Your task to perform on an android device: What is the recent news? Image 0: 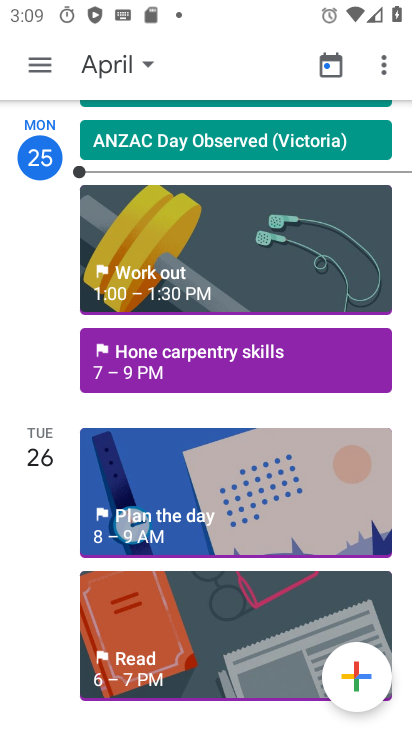
Step 0: press home button
Your task to perform on an android device: What is the recent news? Image 1: 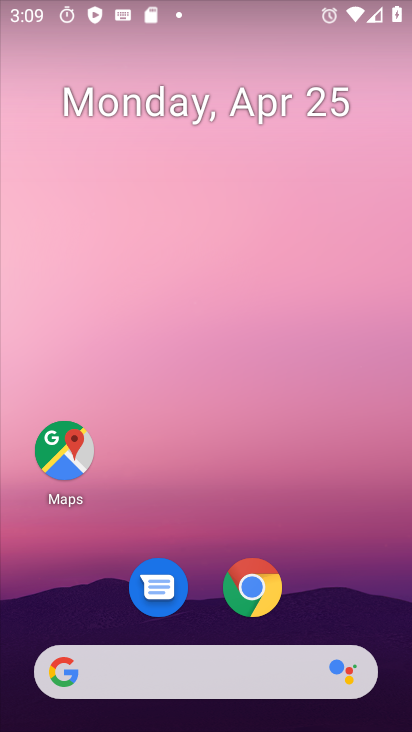
Step 1: drag from (331, 571) to (282, 2)
Your task to perform on an android device: What is the recent news? Image 2: 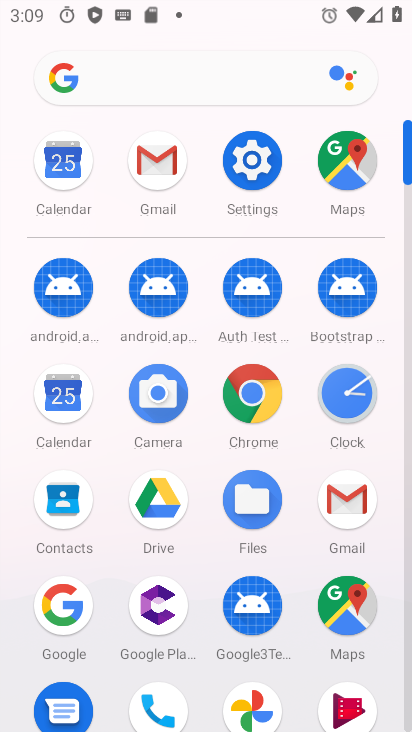
Step 2: click (240, 407)
Your task to perform on an android device: What is the recent news? Image 3: 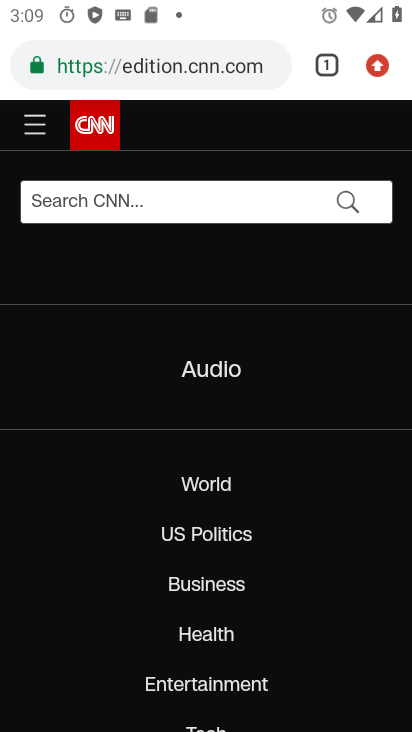
Step 3: click (223, 72)
Your task to perform on an android device: What is the recent news? Image 4: 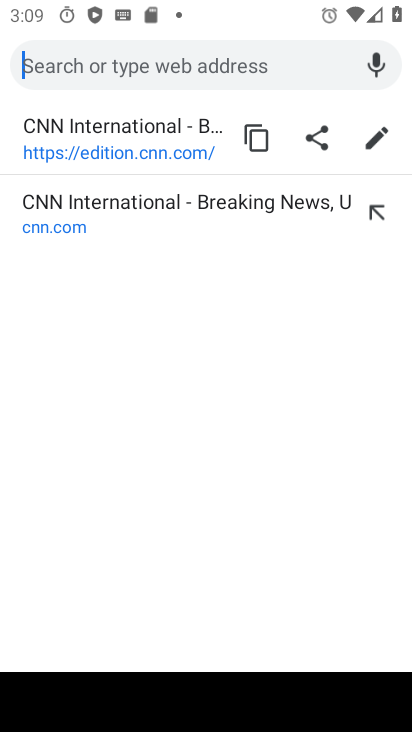
Step 4: type "news"
Your task to perform on an android device: What is the recent news? Image 5: 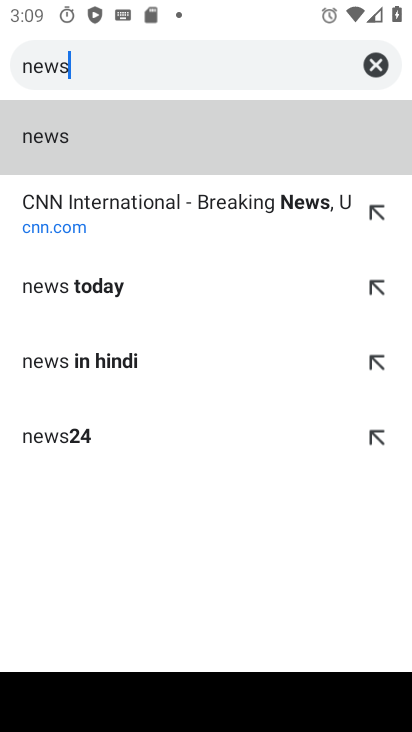
Step 5: click (174, 141)
Your task to perform on an android device: What is the recent news? Image 6: 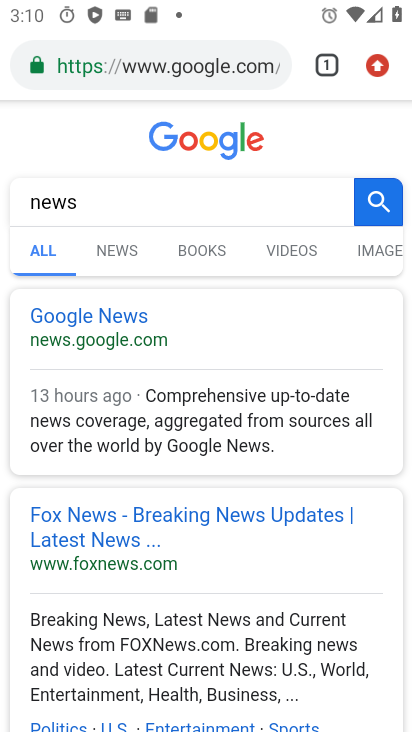
Step 6: click (127, 247)
Your task to perform on an android device: What is the recent news? Image 7: 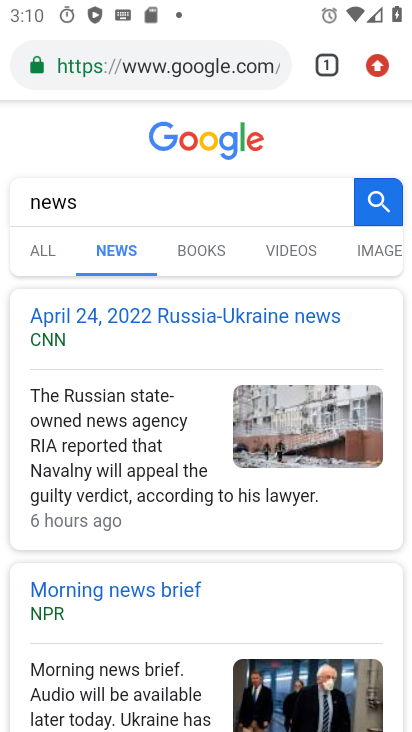
Step 7: task complete